Your task to perform on an android device: Add "logitech g pro" to the cart on target.com Image 0: 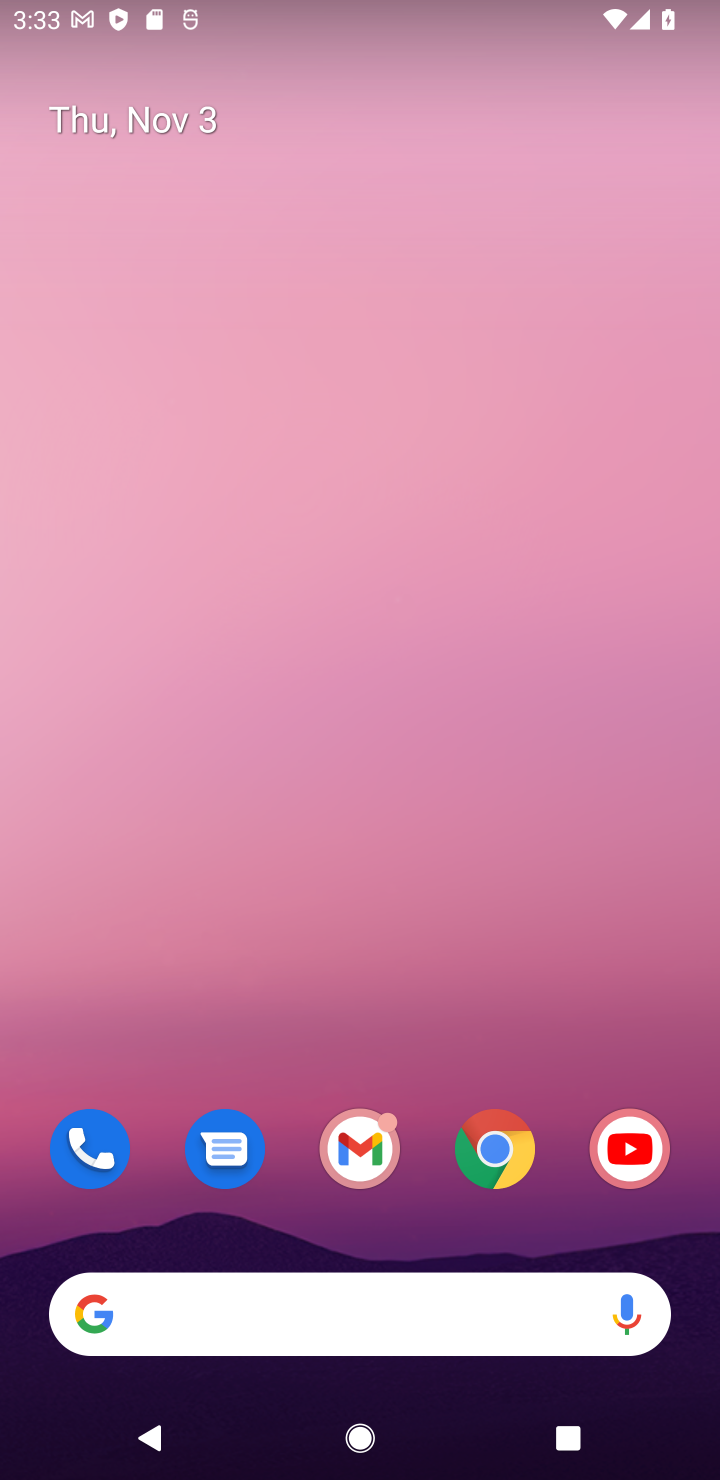
Step 0: drag from (449, 1041) to (616, 7)
Your task to perform on an android device: Add "logitech g pro" to the cart on target.com Image 1: 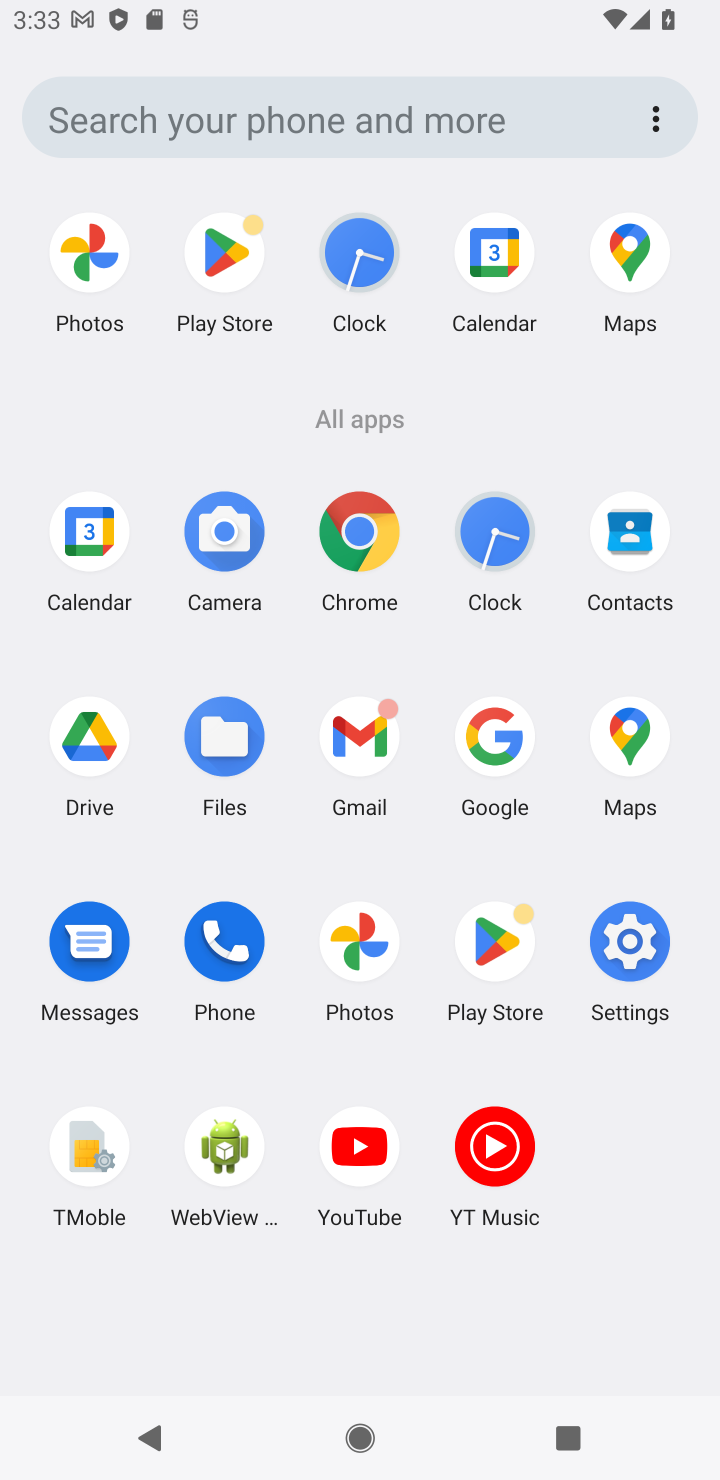
Step 1: click (367, 527)
Your task to perform on an android device: Add "logitech g pro" to the cart on target.com Image 2: 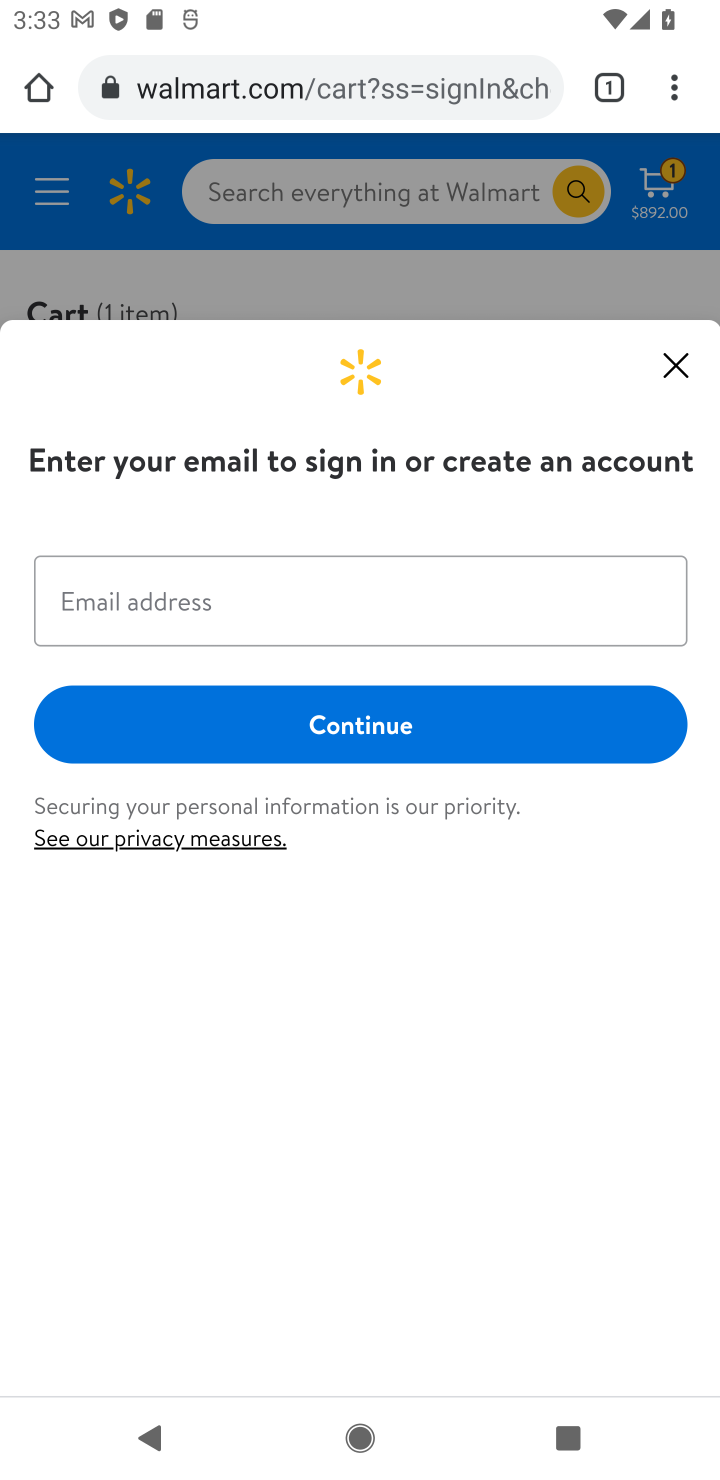
Step 2: click (190, 84)
Your task to perform on an android device: Add "logitech g pro" to the cart on target.com Image 3: 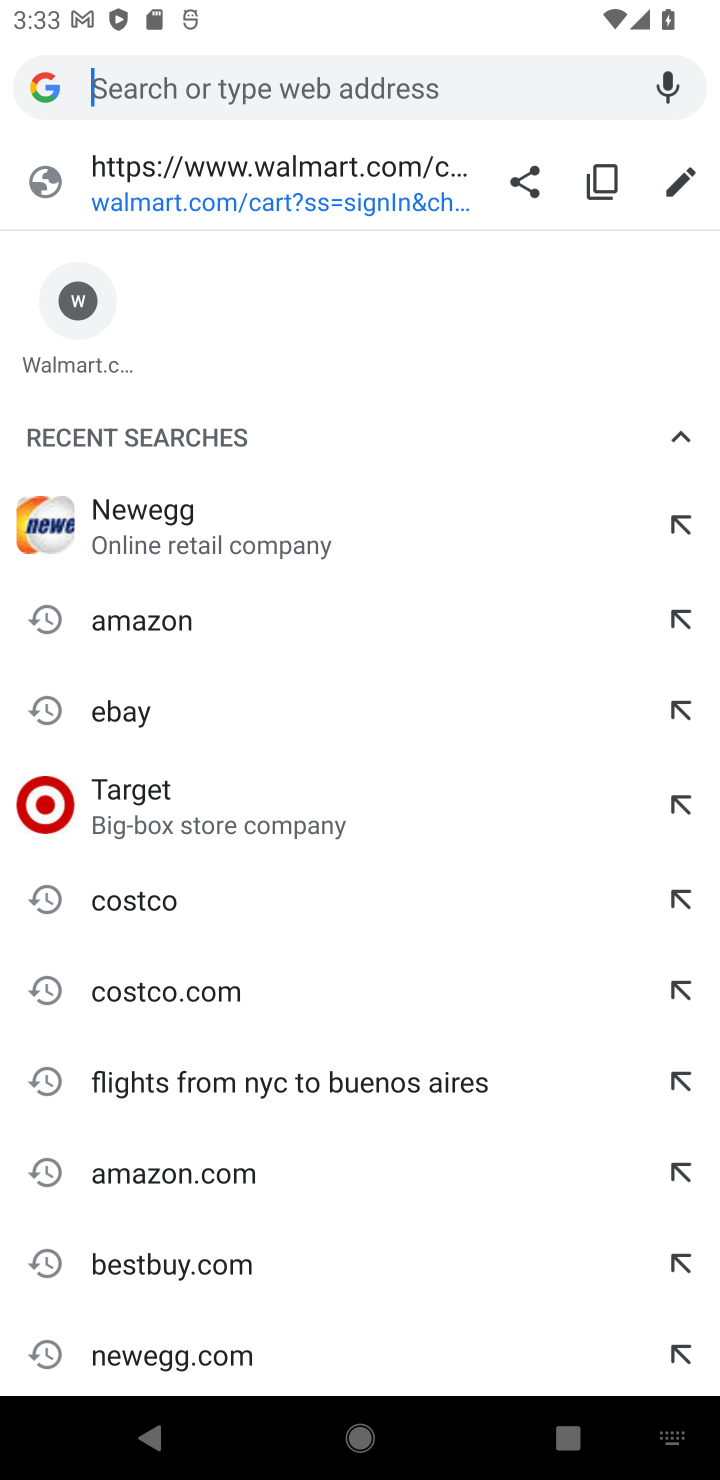
Step 3: click (127, 789)
Your task to perform on an android device: Add "logitech g pro" to the cart on target.com Image 4: 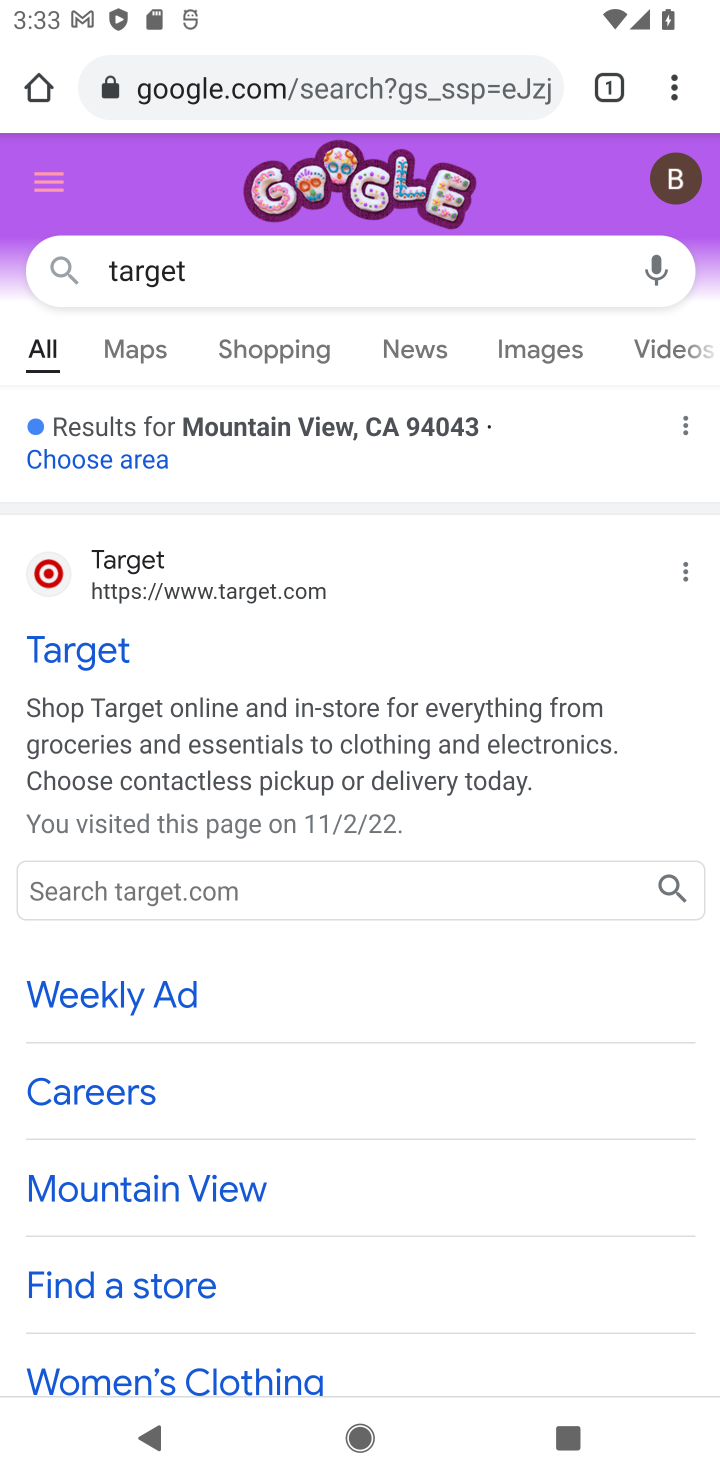
Step 4: click (81, 654)
Your task to perform on an android device: Add "logitech g pro" to the cart on target.com Image 5: 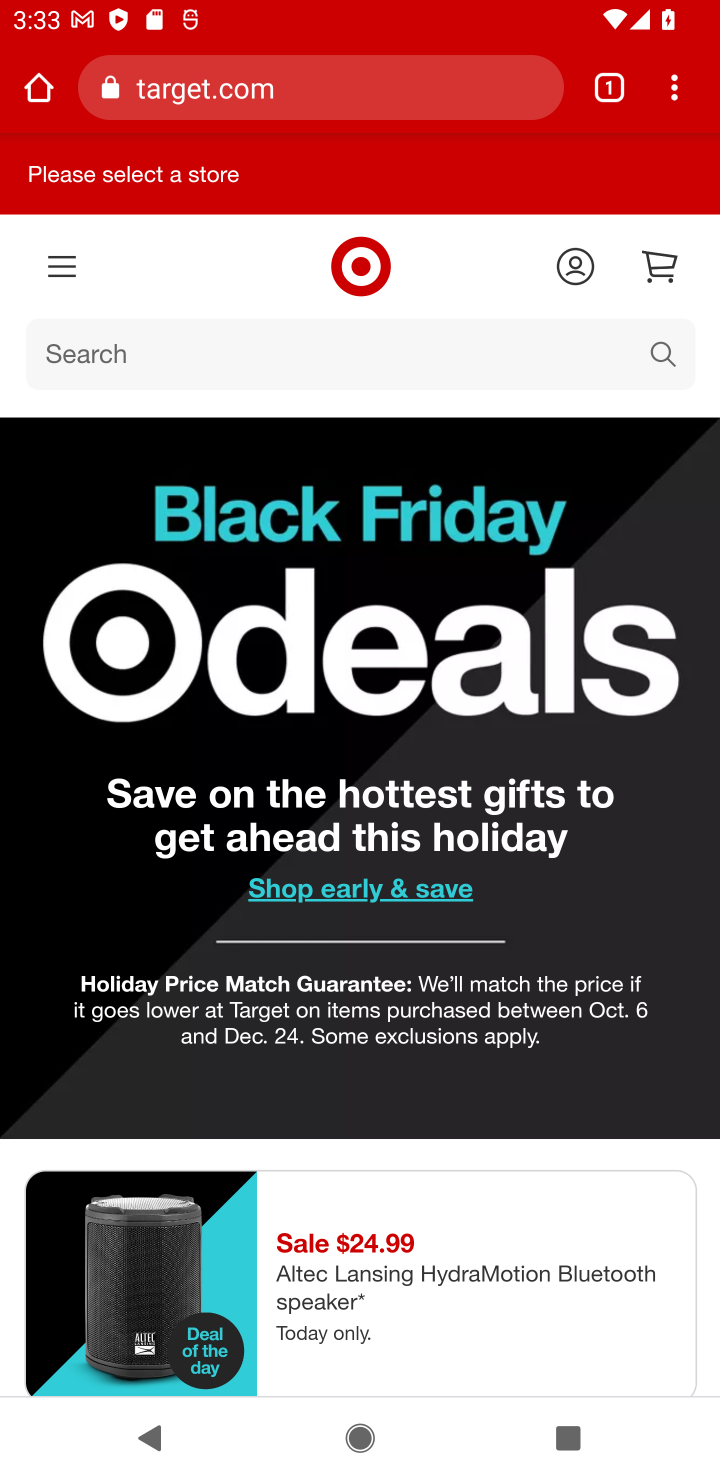
Step 5: click (150, 345)
Your task to perform on an android device: Add "logitech g pro" to the cart on target.com Image 6: 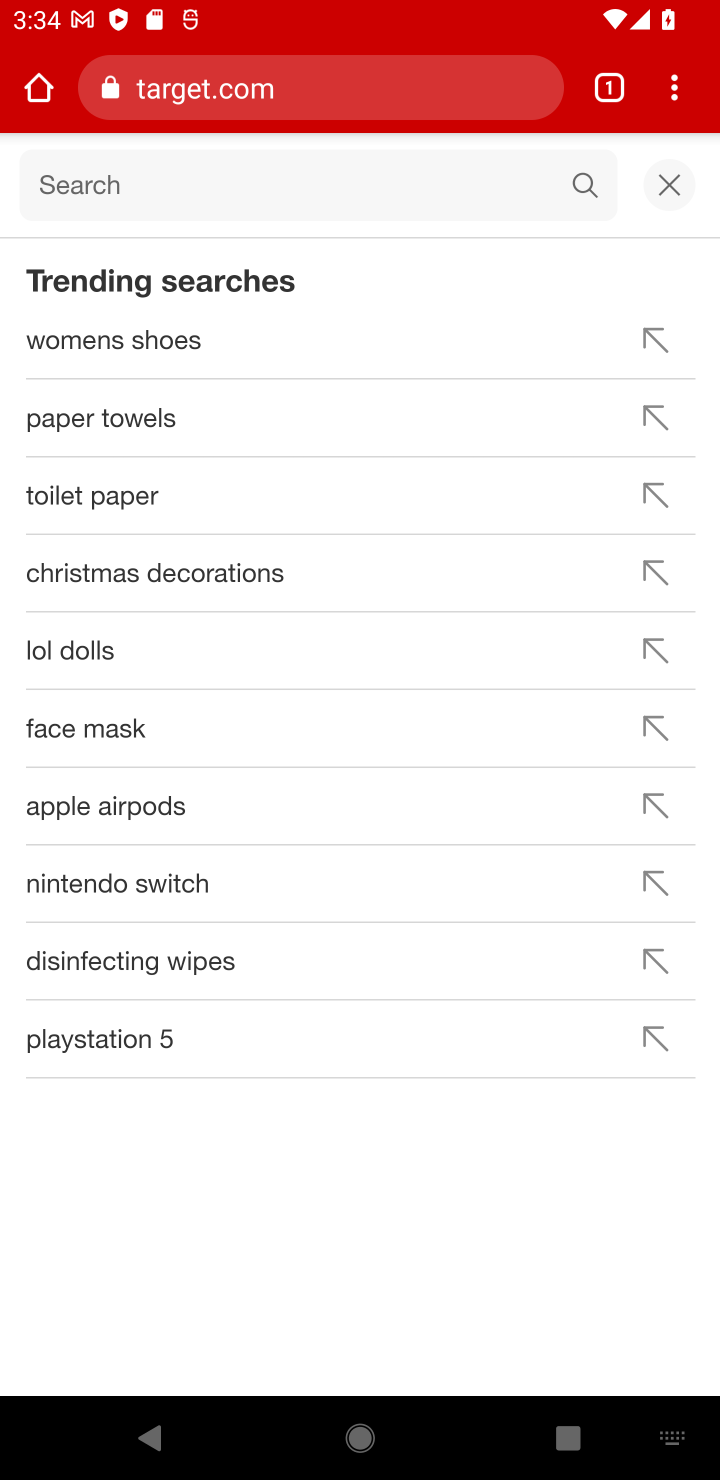
Step 6: type "logitech g pro"
Your task to perform on an android device: Add "logitech g pro" to the cart on target.com Image 7: 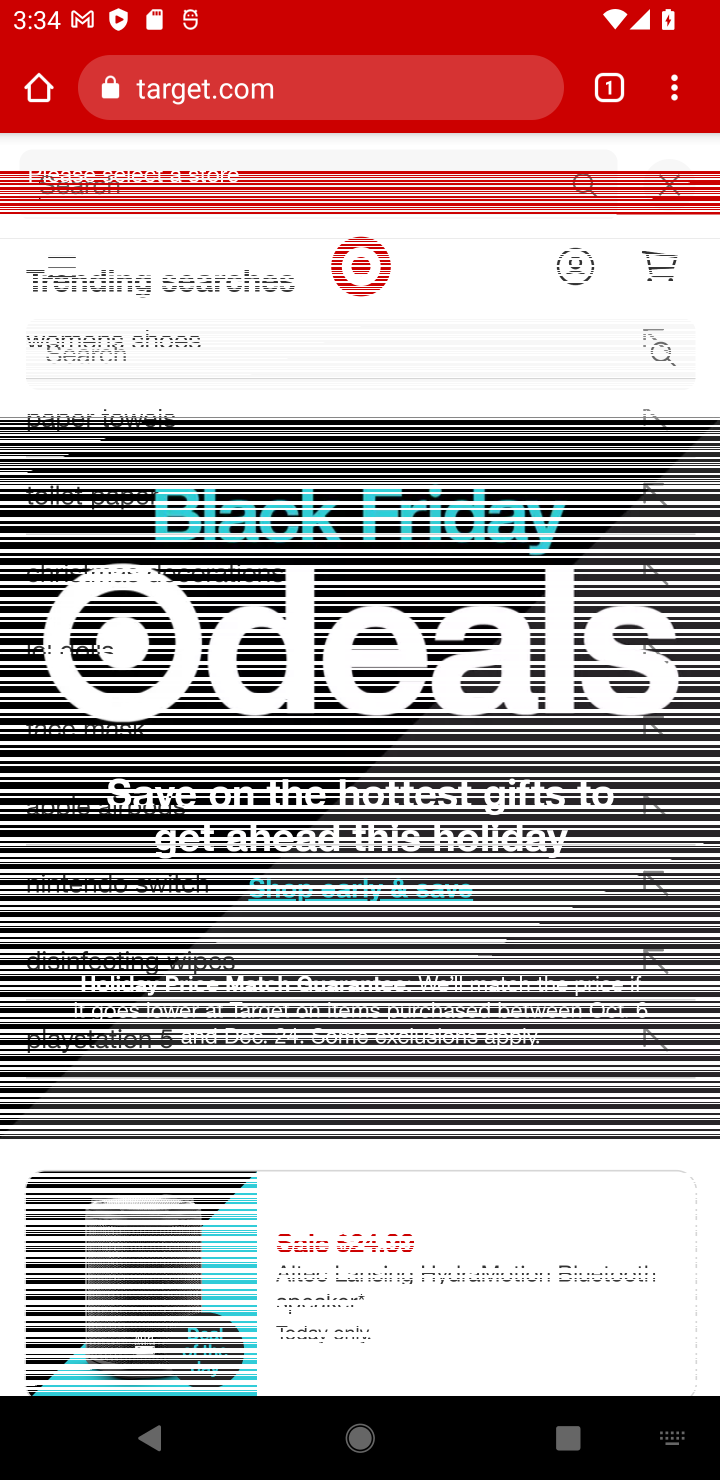
Step 7: type ""
Your task to perform on an android device: Add "logitech g pro" to the cart on target.com Image 8: 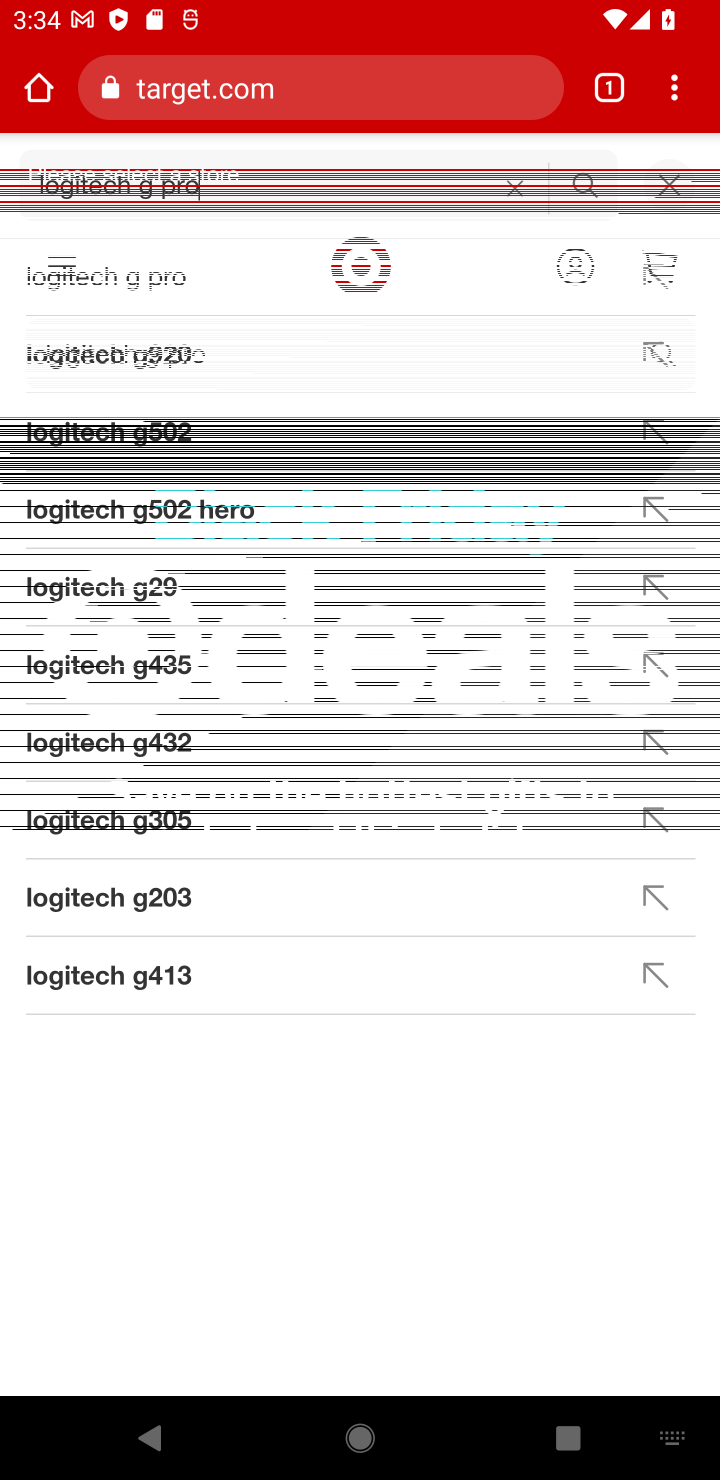
Step 8: click (165, 283)
Your task to perform on an android device: Add "logitech g pro" to the cart on target.com Image 9: 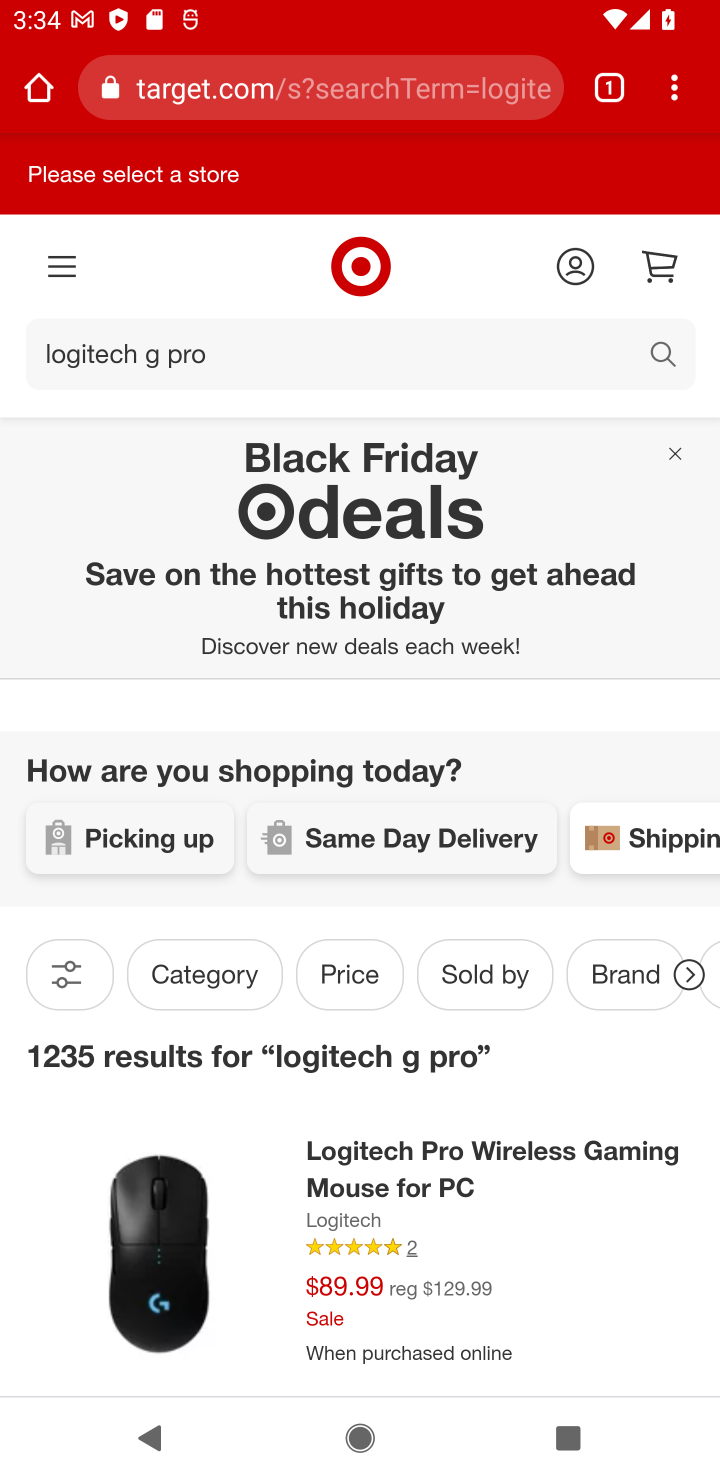
Step 9: click (366, 1182)
Your task to perform on an android device: Add "logitech g pro" to the cart on target.com Image 10: 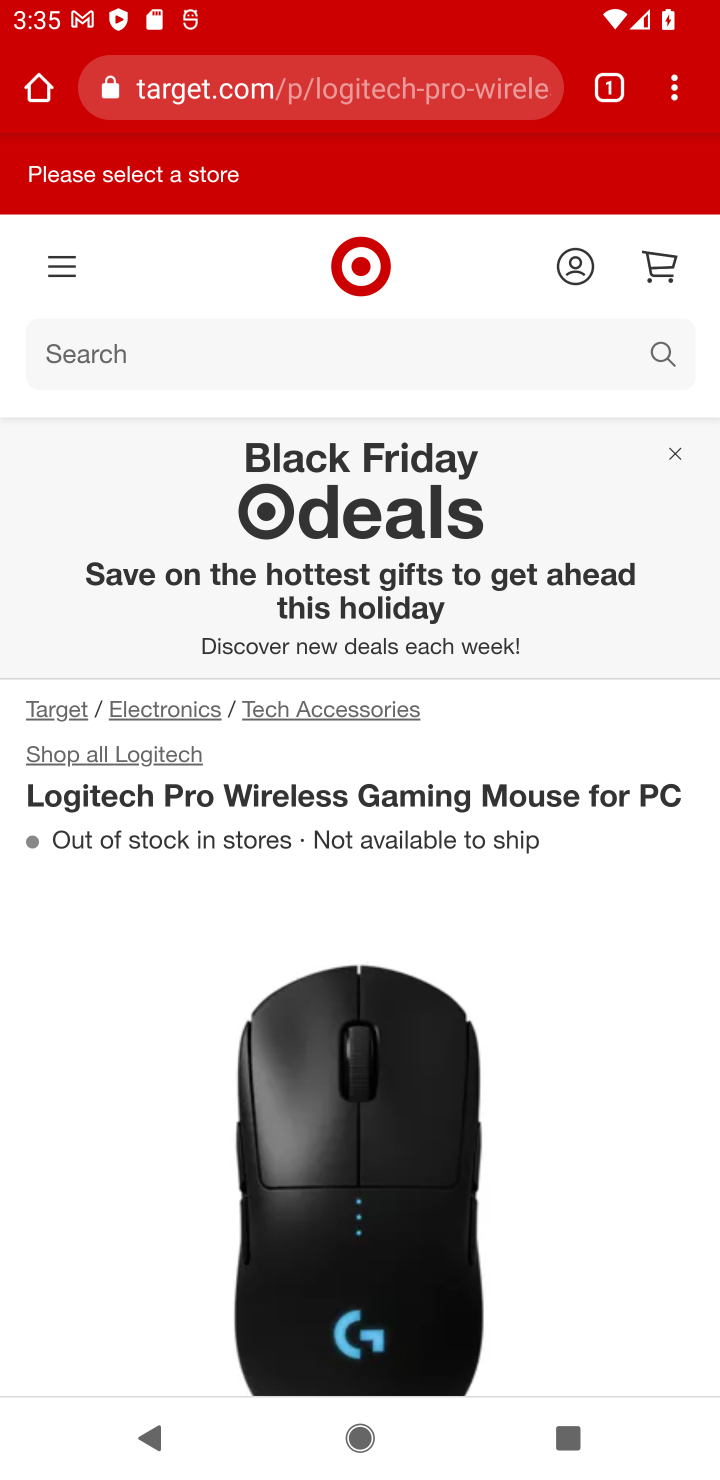
Step 10: drag from (582, 1184) to (662, 225)
Your task to perform on an android device: Add "logitech g pro" to the cart on target.com Image 11: 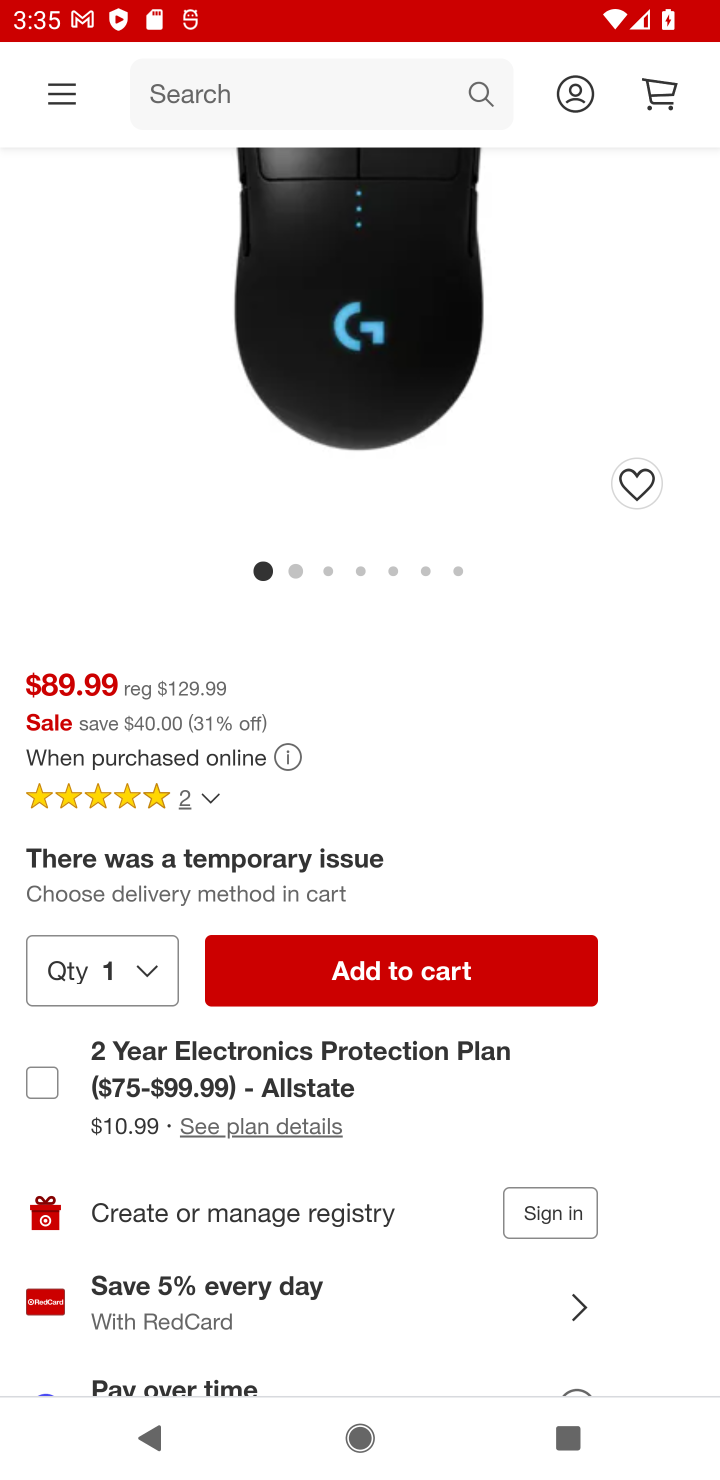
Step 11: click (391, 982)
Your task to perform on an android device: Add "logitech g pro" to the cart on target.com Image 12: 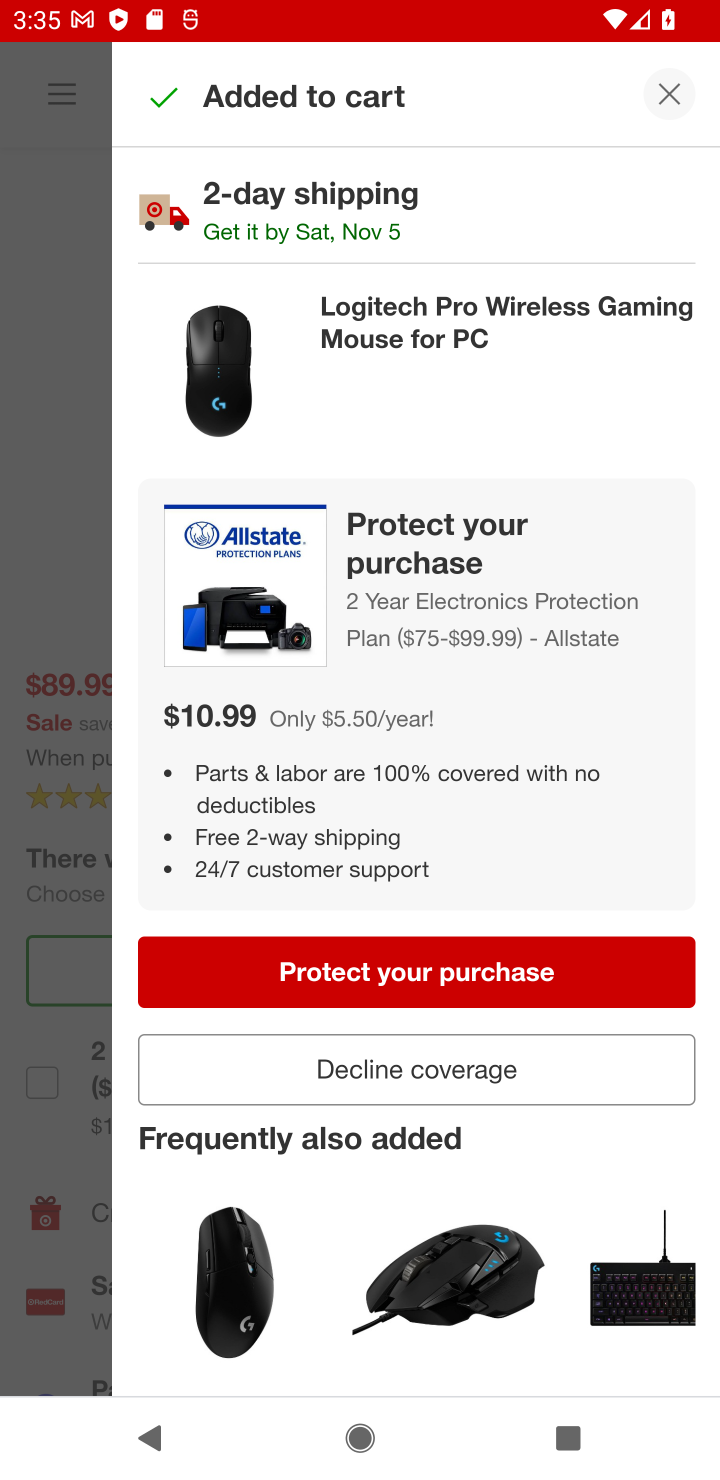
Step 12: task complete